Your task to perform on an android device: snooze an email in the gmail app Image 0: 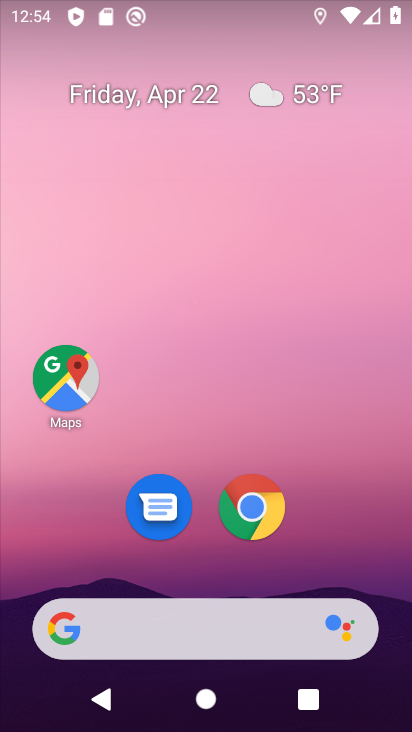
Step 0: drag from (342, 509) to (291, 181)
Your task to perform on an android device: snooze an email in the gmail app Image 1: 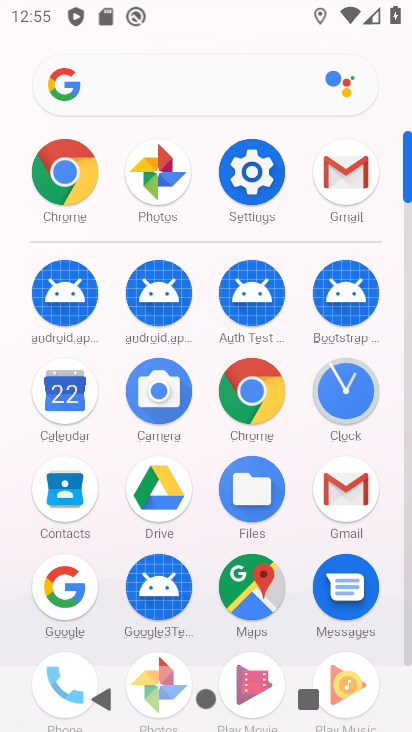
Step 1: click (354, 162)
Your task to perform on an android device: snooze an email in the gmail app Image 2: 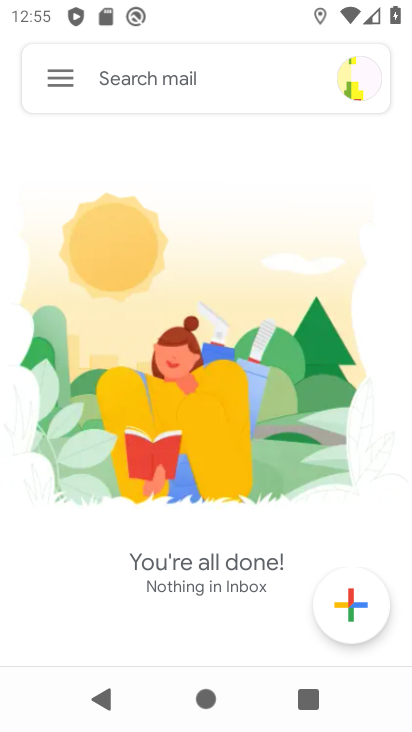
Step 2: click (45, 67)
Your task to perform on an android device: snooze an email in the gmail app Image 3: 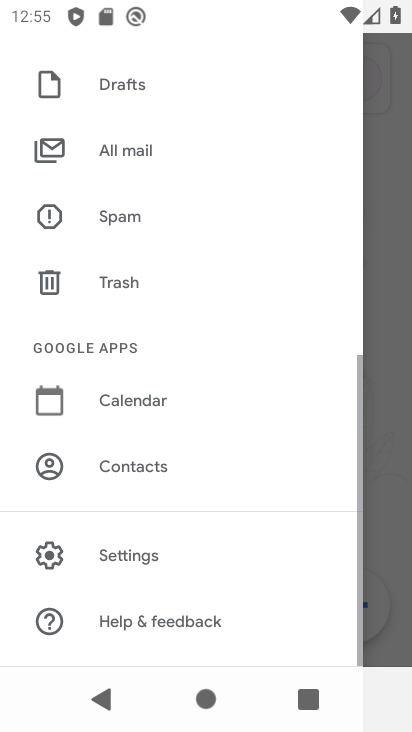
Step 3: task complete